Your task to perform on an android device: toggle pop-ups in chrome Image 0: 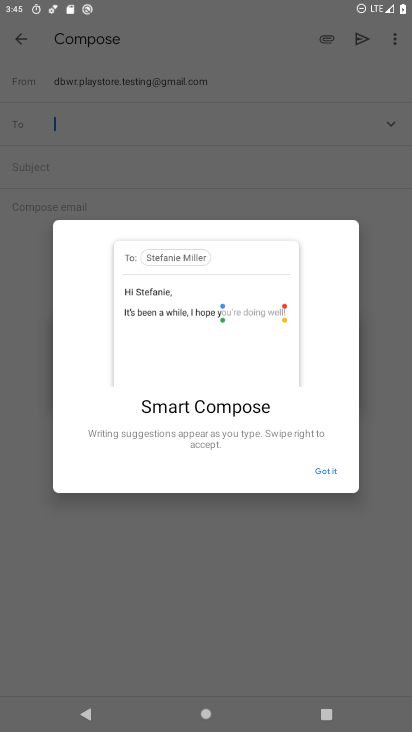
Step 0: press home button
Your task to perform on an android device: toggle pop-ups in chrome Image 1: 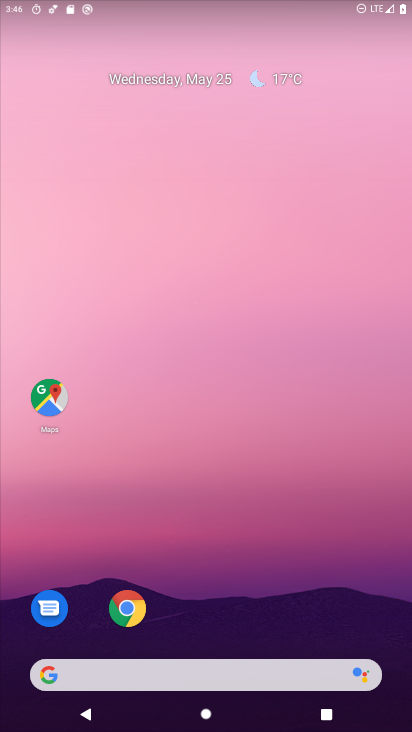
Step 1: drag from (255, 573) to (329, 108)
Your task to perform on an android device: toggle pop-ups in chrome Image 2: 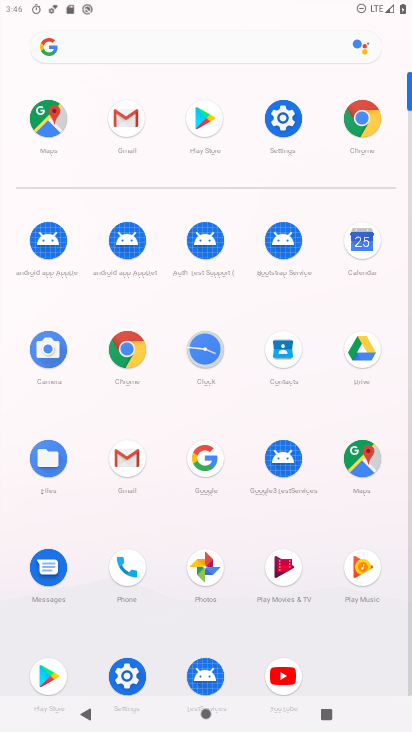
Step 2: click (130, 354)
Your task to perform on an android device: toggle pop-ups in chrome Image 3: 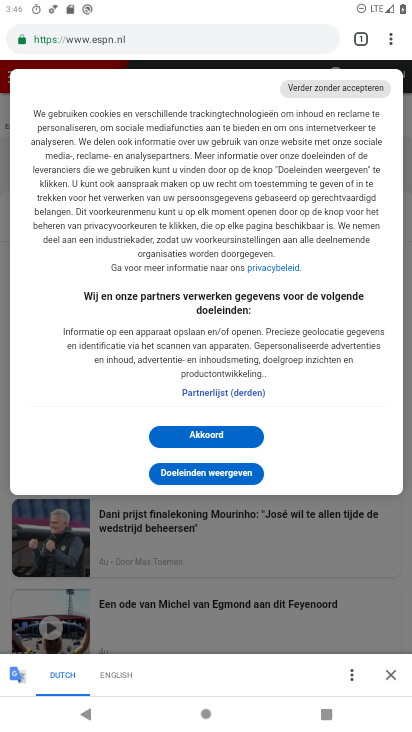
Step 3: drag from (387, 26) to (264, 473)
Your task to perform on an android device: toggle pop-ups in chrome Image 4: 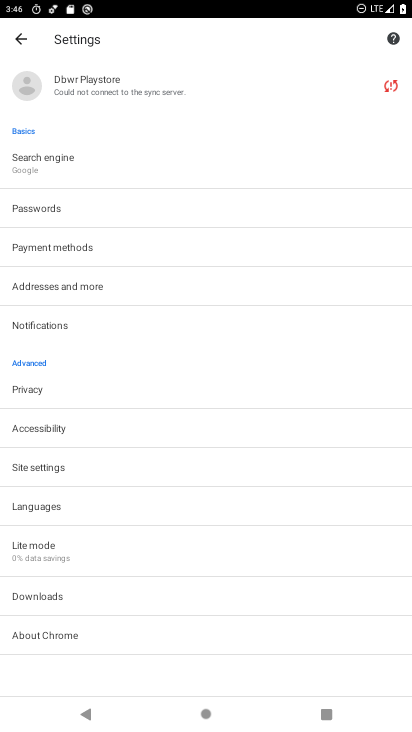
Step 4: click (128, 467)
Your task to perform on an android device: toggle pop-ups in chrome Image 5: 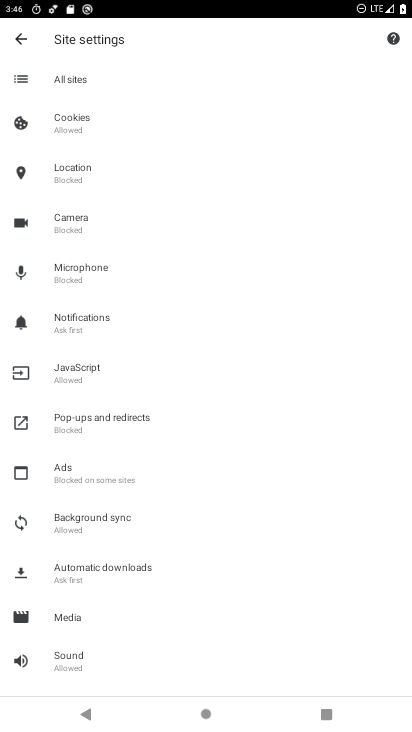
Step 5: click (128, 427)
Your task to perform on an android device: toggle pop-ups in chrome Image 6: 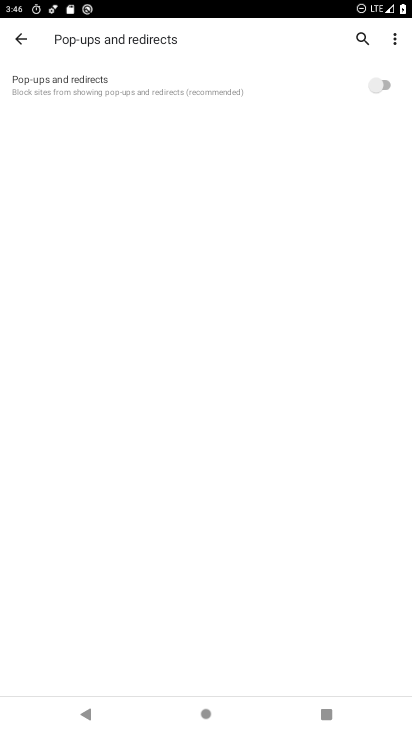
Step 6: click (375, 85)
Your task to perform on an android device: toggle pop-ups in chrome Image 7: 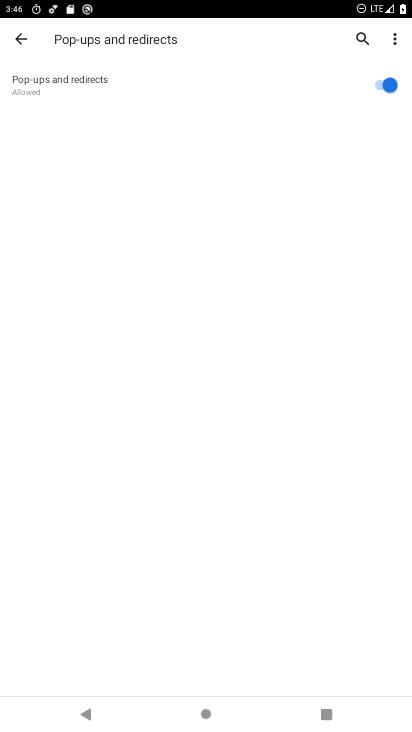
Step 7: task complete